Your task to perform on an android device: When is my next appointment? Image 0: 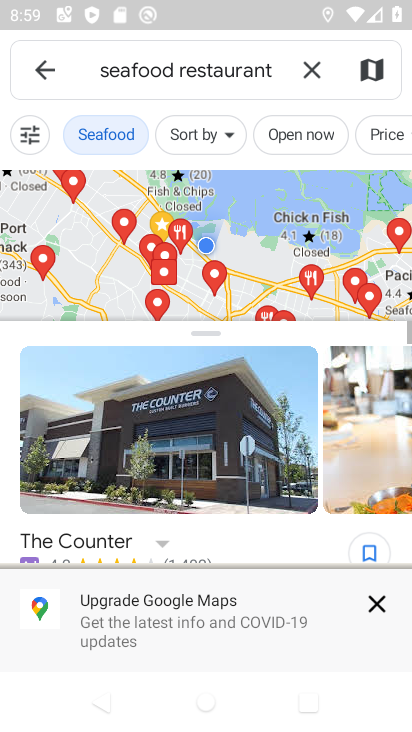
Step 0: click (251, 528)
Your task to perform on an android device: When is my next appointment? Image 1: 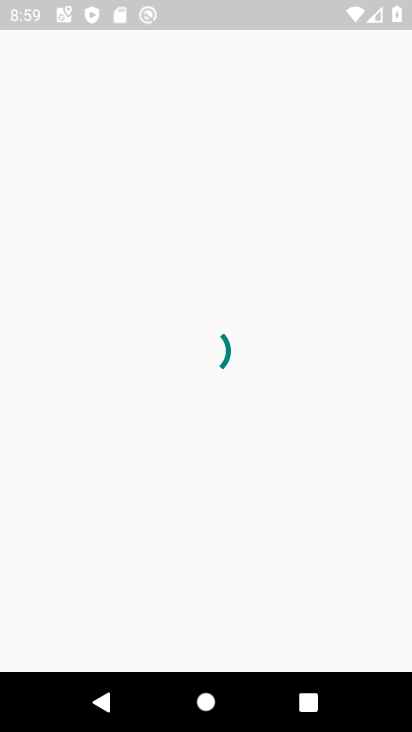
Step 1: press home button
Your task to perform on an android device: When is my next appointment? Image 2: 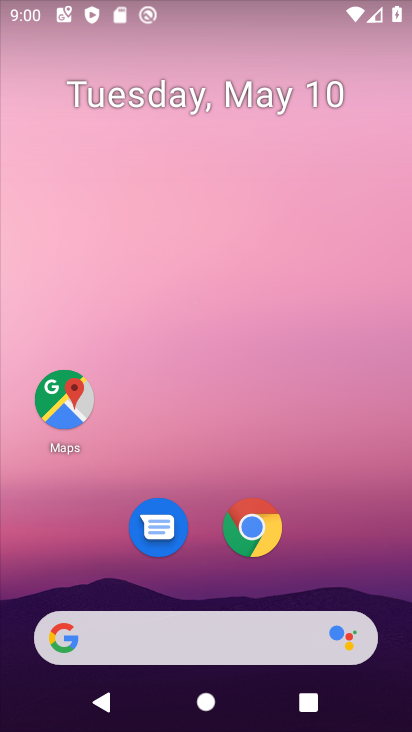
Step 2: drag from (348, 498) to (339, 220)
Your task to perform on an android device: When is my next appointment? Image 3: 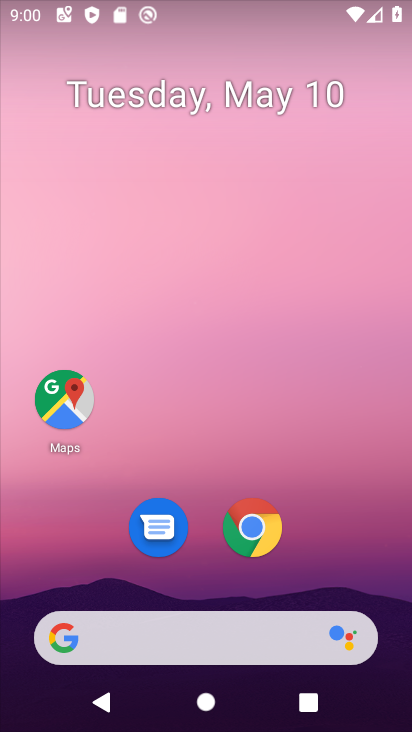
Step 3: drag from (338, 566) to (335, 302)
Your task to perform on an android device: When is my next appointment? Image 4: 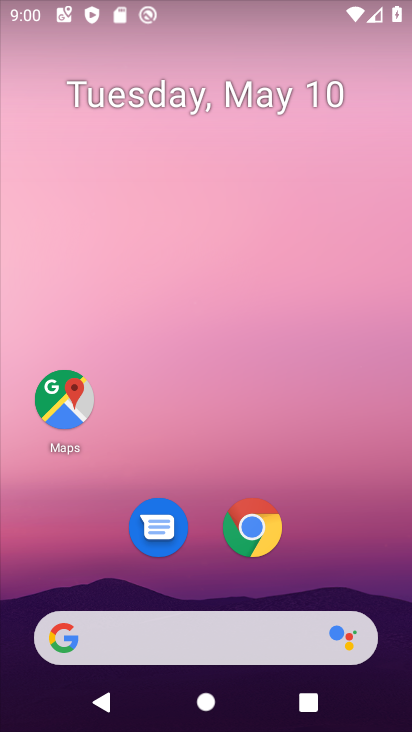
Step 4: drag from (309, 575) to (312, 183)
Your task to perform on an android device: When is my next appointment? Image 5: 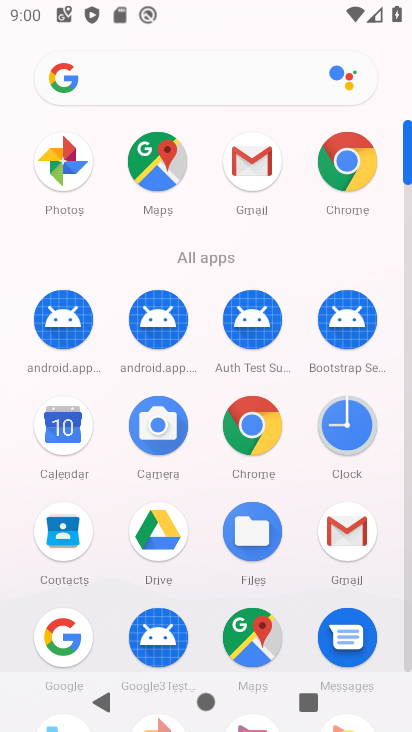
Step 5: drag from (321, 567) to (348, 293)
Your task to perform on an android device: When is my next appointment? Image 6: 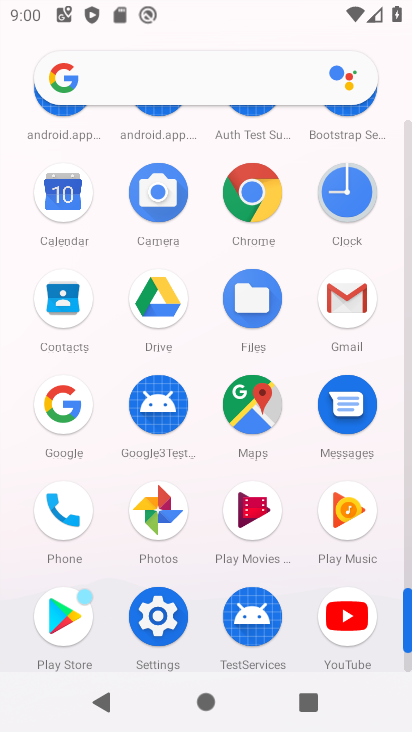
Step 6: drag from (308, 205) to (289, 450)
Your task to perform on an android device: When is my next appointment? Image 7: 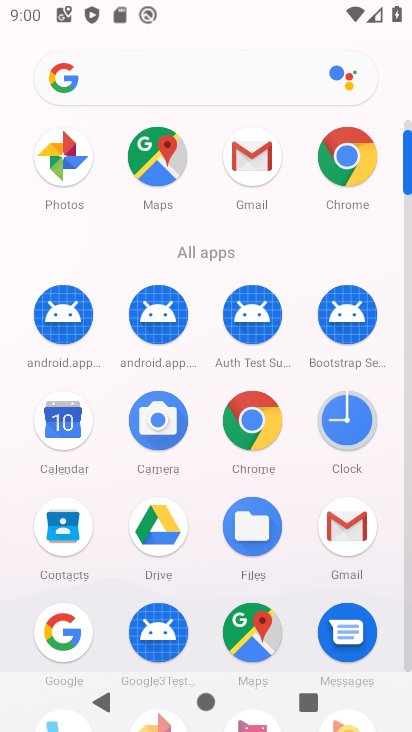
Step 7: drag from (278, 304) to (263, 375)
Your task to perform on an android device: When is my next appointment? Image 8: 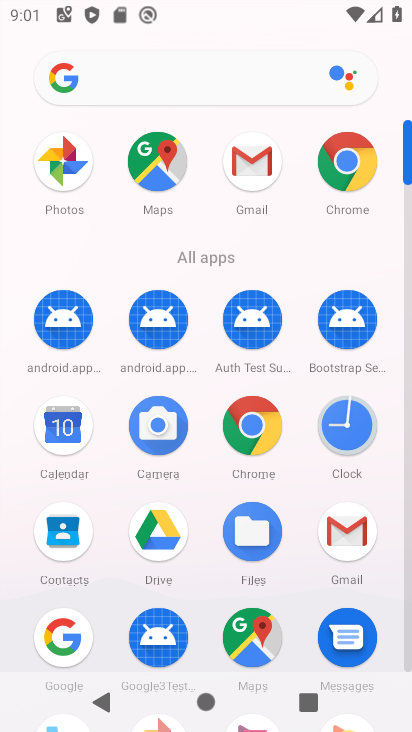
Step 8: drag from (289, 546) to (333, 330)
Your task to perform on an android device: When is my next appointment? Image 9: 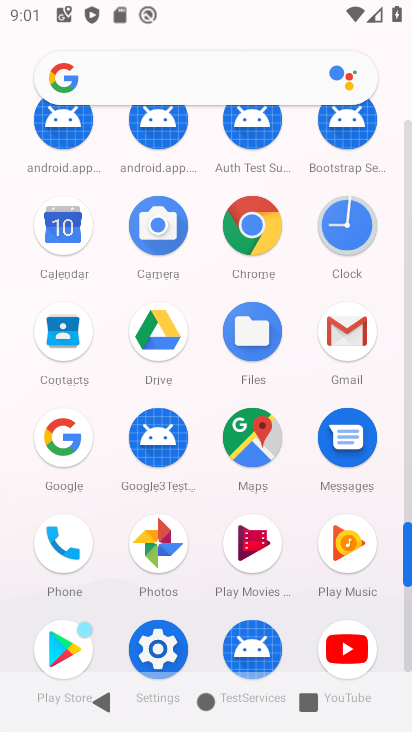
Step 9: click (71, 350)
Your task to perform on an android device: When is my next appointment? Image 10: 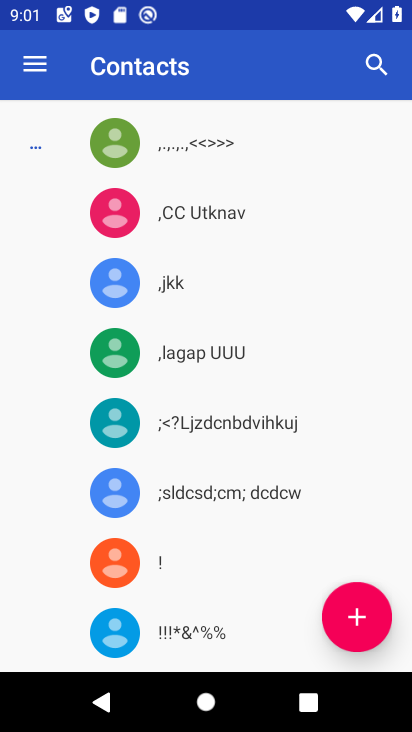
Step 10: press home button
Your task to perform on an android device: When is my next appointment? Image 11: 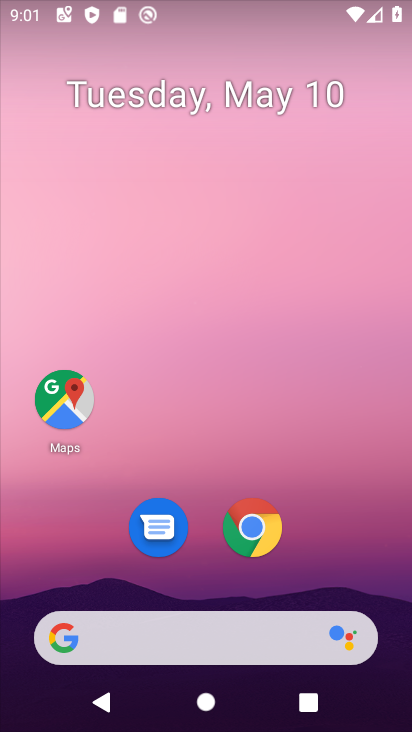
Step 11: drag from (211, 535) to (227, 293)
Your task to perform on an android device: When is my next appointment? Image 12: 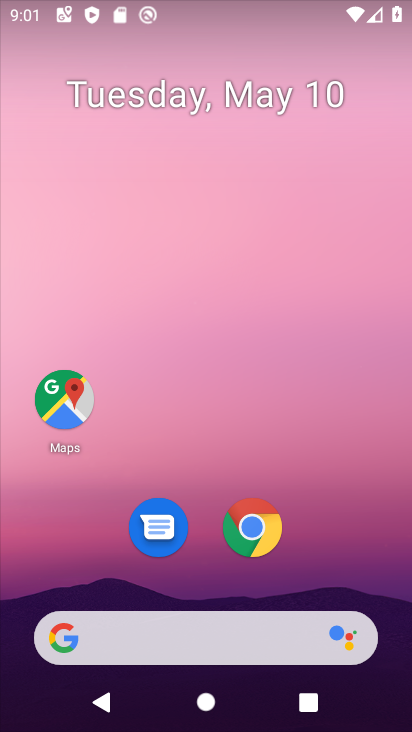
Step 12: drag from (199, 559) to (271, 176)
Your task to perform on an android device: When is my next appointment? Image 13: 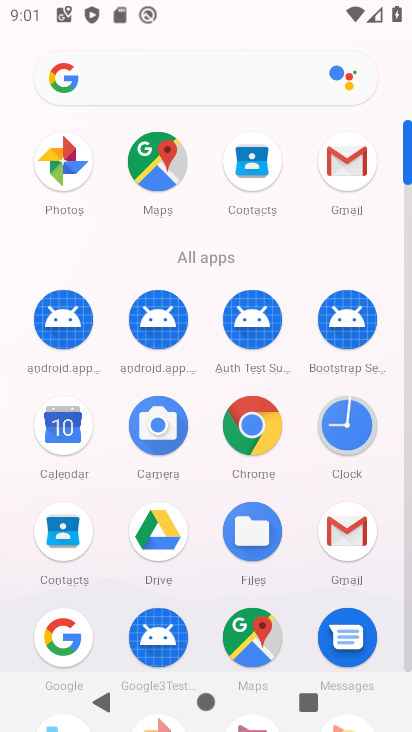
Step 13: click (57, 441)
Your task to perform on an android device: When is my next appointment? Image 14: 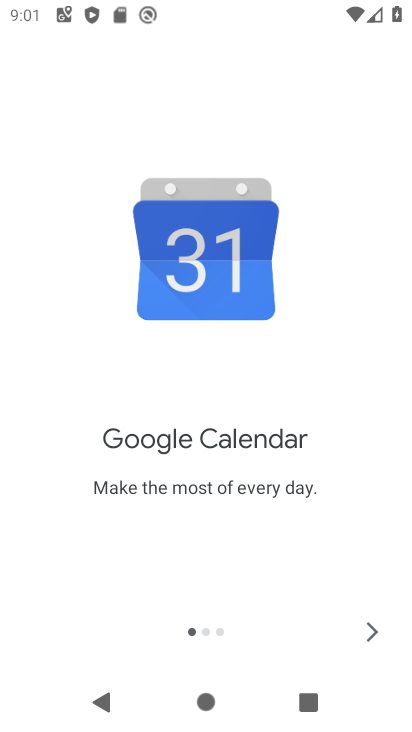
Step 14: click (372, 634)
Your task to perform on an android device: When is my next appointment? Image 15: 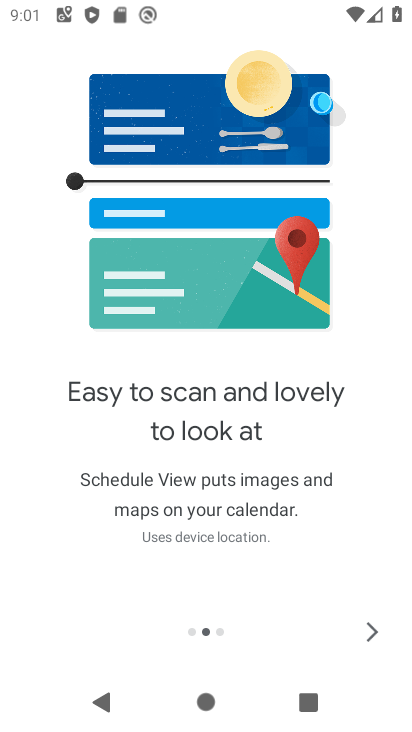
Step 15: click (372, 634)
Your task to perform on an android device: When is my next appointment? Image 16: 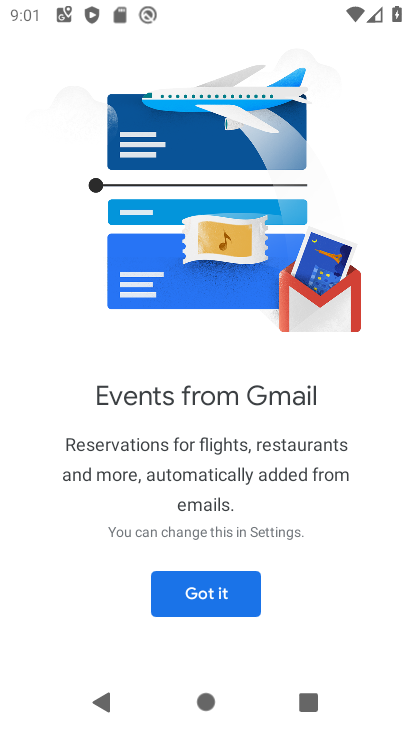
Step 16: click (214, 606)
Your task to perform on an android device: When is my next appointment? Image 17: 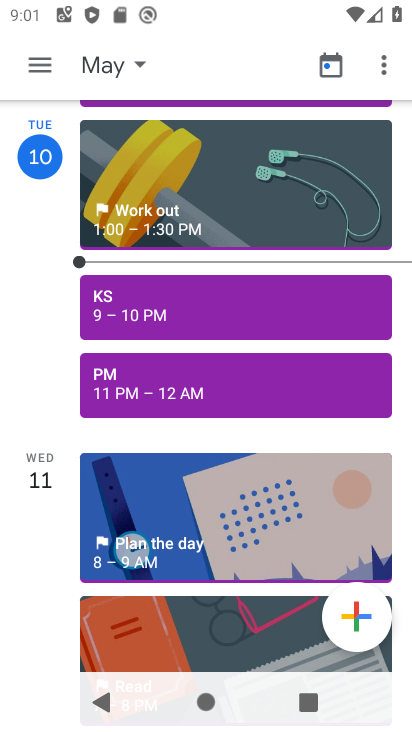
Step 17: task complete